Your task to perform on an android device: turn on location history Image 0: 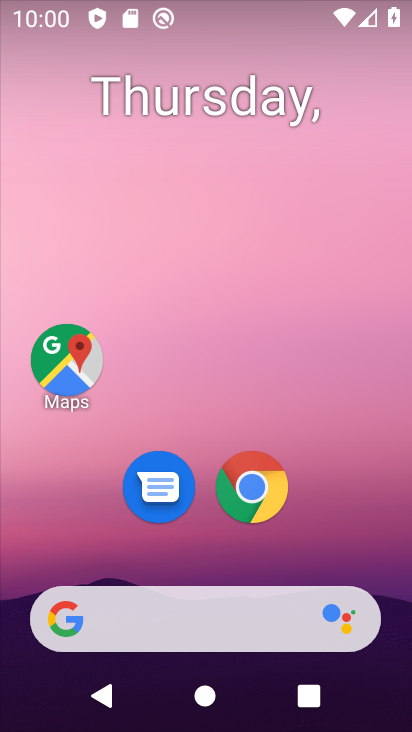
Step 0: drag from (322, 522) to (165, 231)
Your task to perform on an android device: turn on location history Image 1: 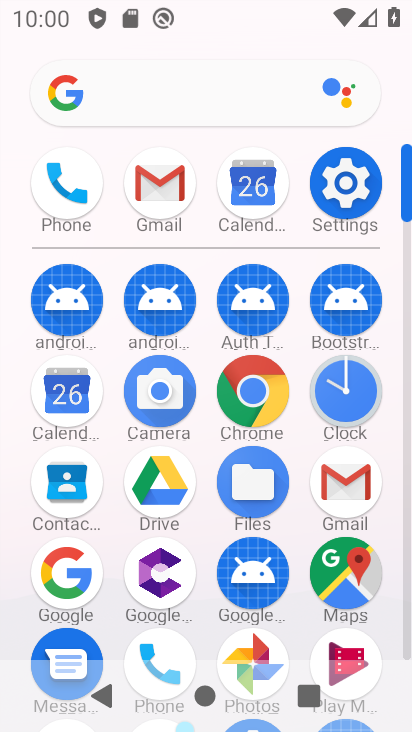
Step 1: click (355, 189)
Your task to perform on an android device: turn on location history Image 2: 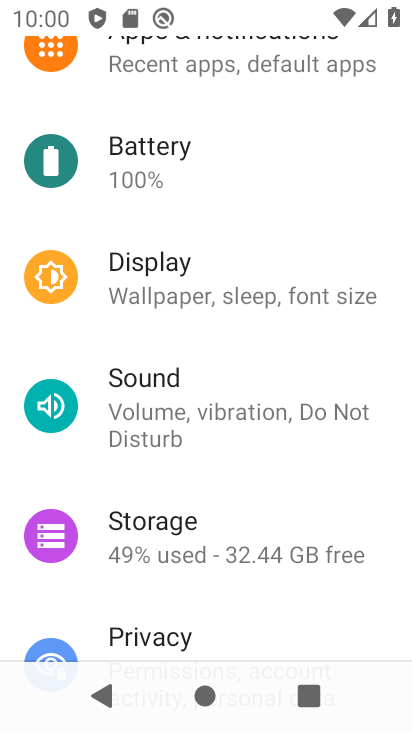
Step 2: drag from (210, 559) to (150, 182)
Your task to perform on an android device: turn on location history Image 3: 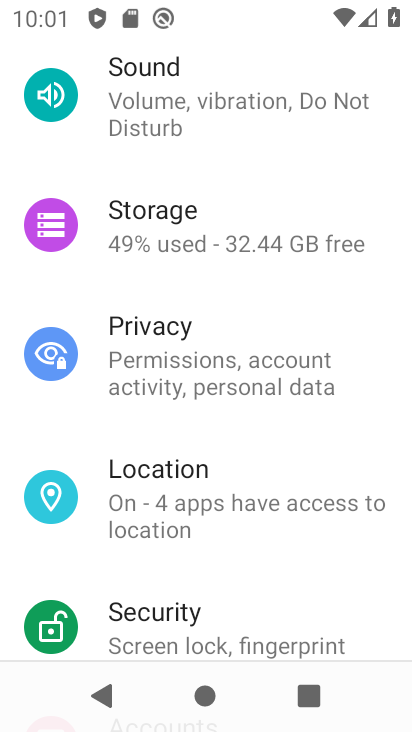
Step 3: click (146, 498)
Your task to perform on an android device: turn on location history Image 4: 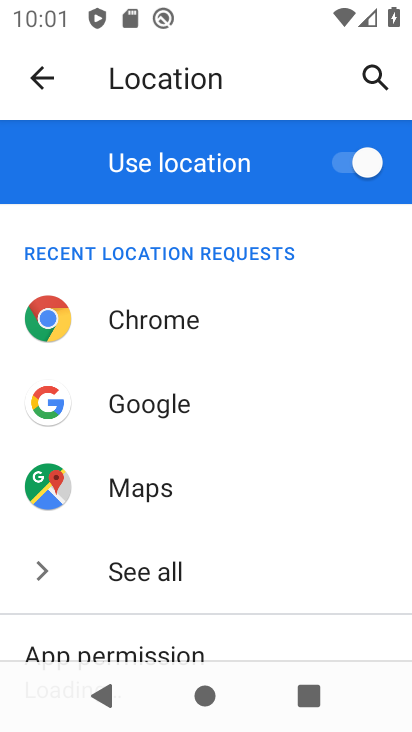
Step 4: drag from (188, 607) to (165, 167)
Your task to perform on an android device: turn on location history Image 5: 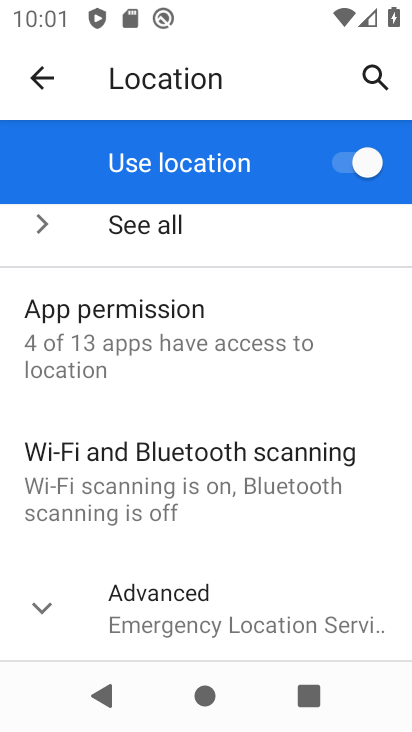
Step 5: click (193, 624)
Your task to perform on an android device: turn on location history Image 6: 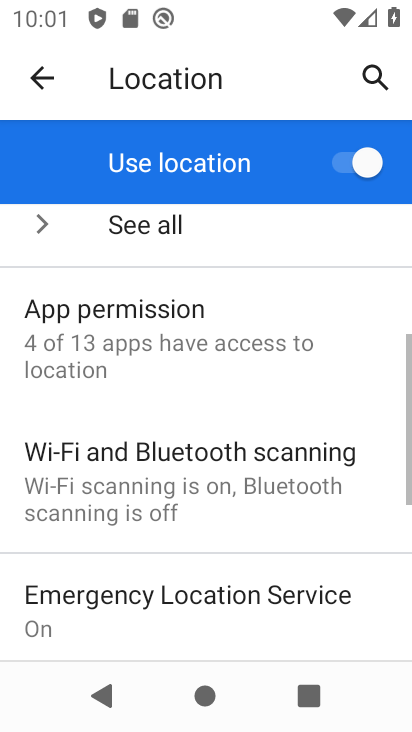
Step 6: drag from (193, 624) to (135, 169)
Your task to perform on an android device: turn on location history Image 7: 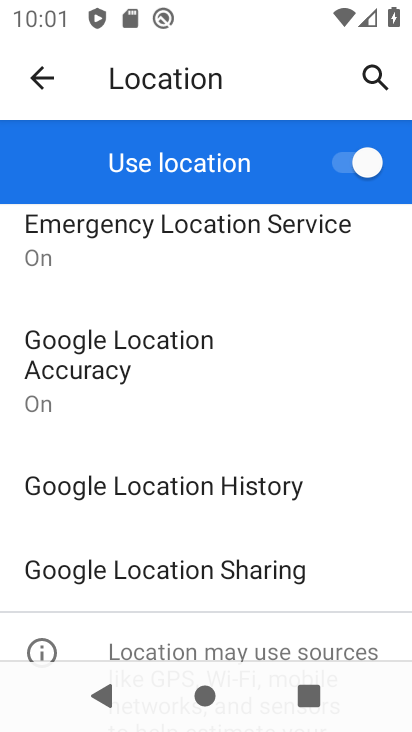
Step 7: click (202, 487)
Your task to perform on an android device: turn on location history Image 8: 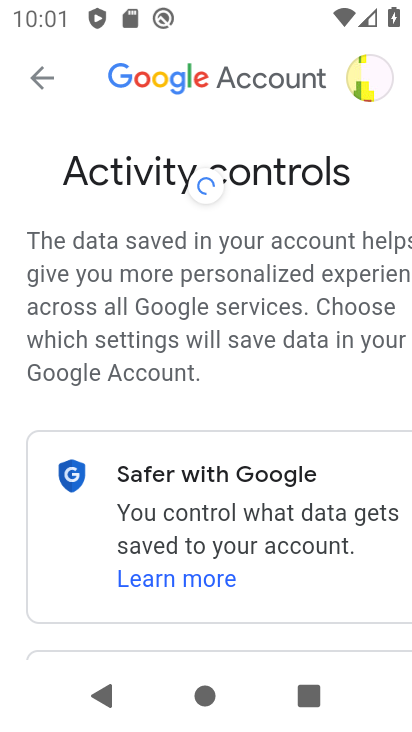
Step 8: drag from (270, 587) to (147, 145)
Your task to perform on an android device: turn on location history Image 9: 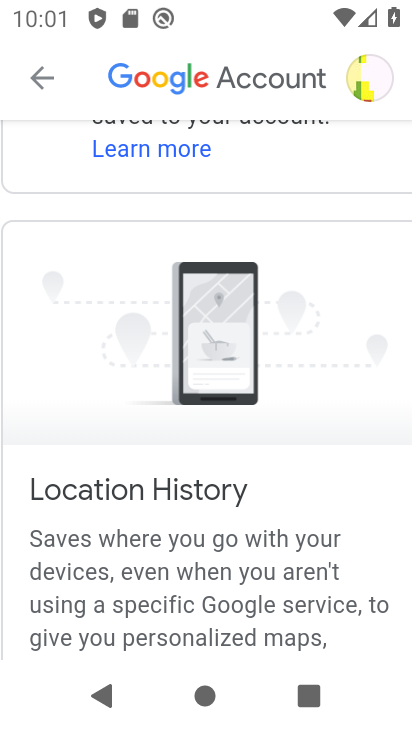
Step 9: drag from (223, 583) to (240, 266)
Your task to perform on an android device: turn on location history Image 10: 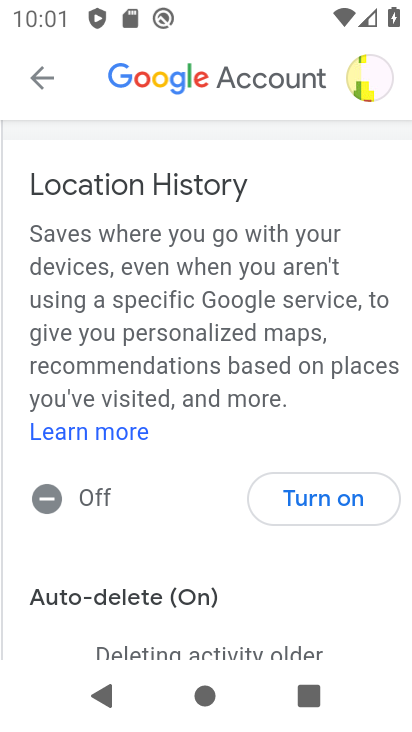
Step 10: click (303, 496)
Your task to perform on an android device: turn on location history Image 11: 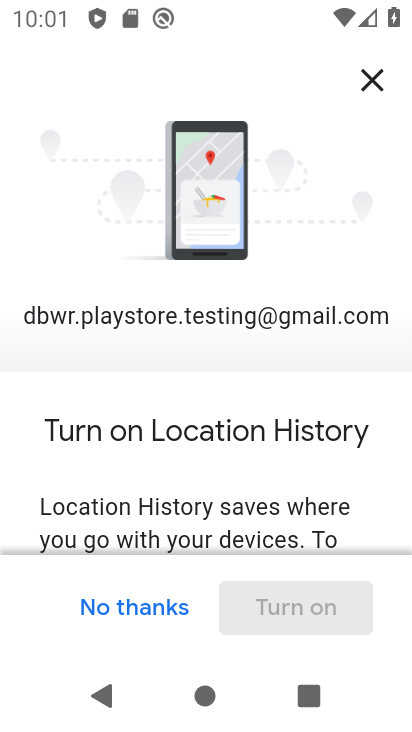
Step 11: drag from (302, 502) to (155, 181)
Your task to perform on an android device: turn on location history Image 12: 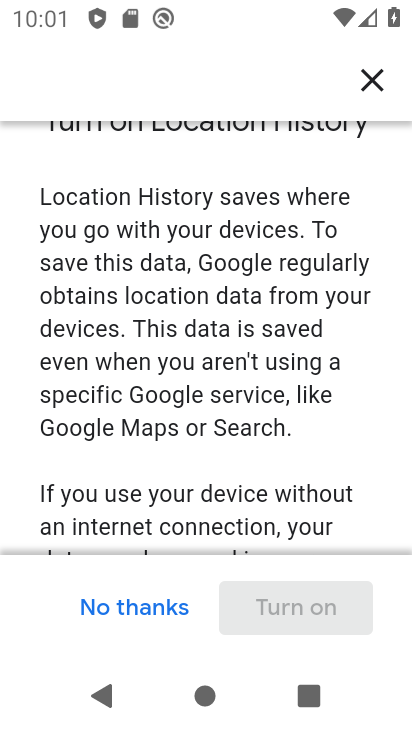
Step 12: drag from (180, 444) to (130, 156)
Your task to perform on an android device: turn on location history Image 13: 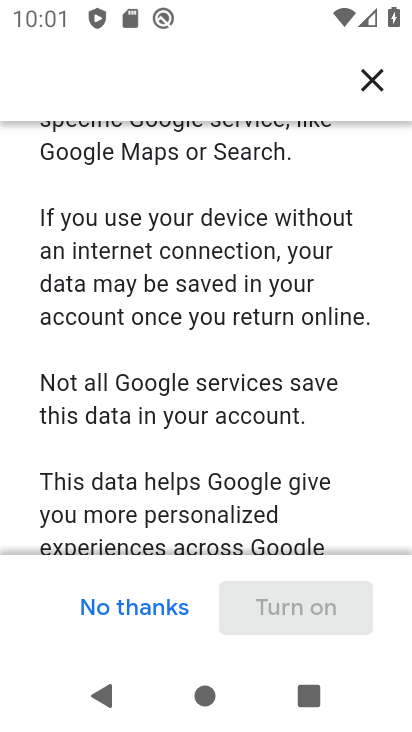
Step 13: drag from (198, 460) to (151, 190)
Your task to perform on an android device: turn on location history Image 14: 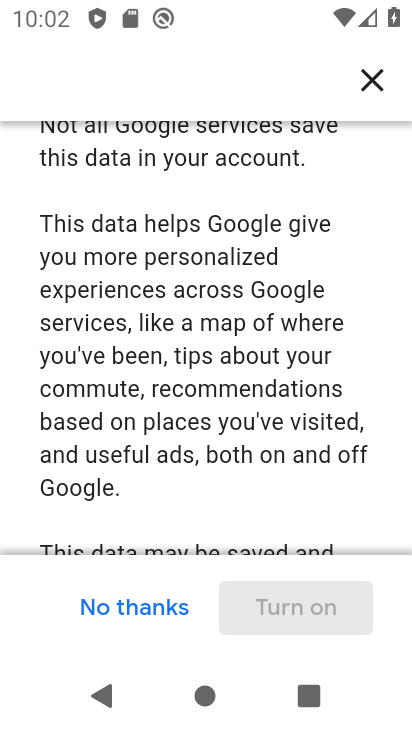
Step 14: drag from (221, 513) to (120, 140)
Your task to perform on an android device: turn on location history Image 15: 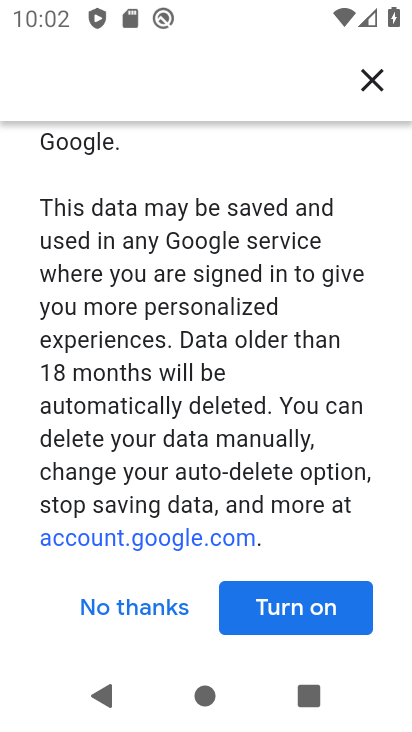
Step 15: click (260, 614)
Your task to perform on an android device: turn on location history Image 16: 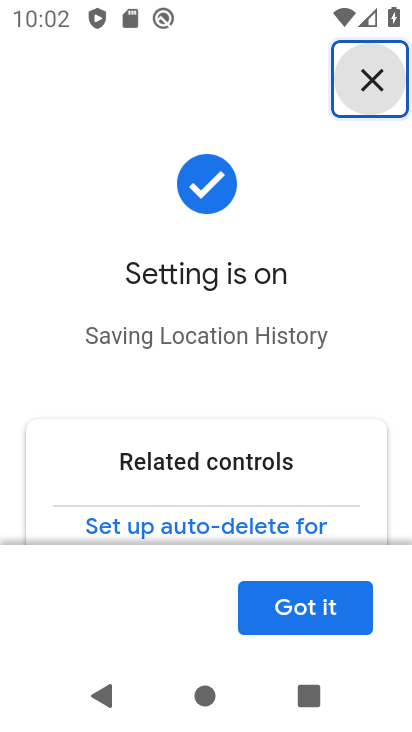
Step 16: click (287, 607)
Your task to perform on an android device: turn on location history Image 17: 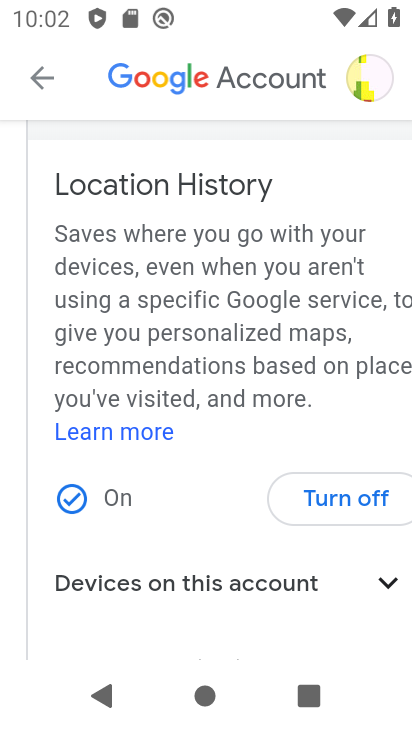
Step 17: task complete